Your task to perform on an android device: Turn off the flashlight Image 0: 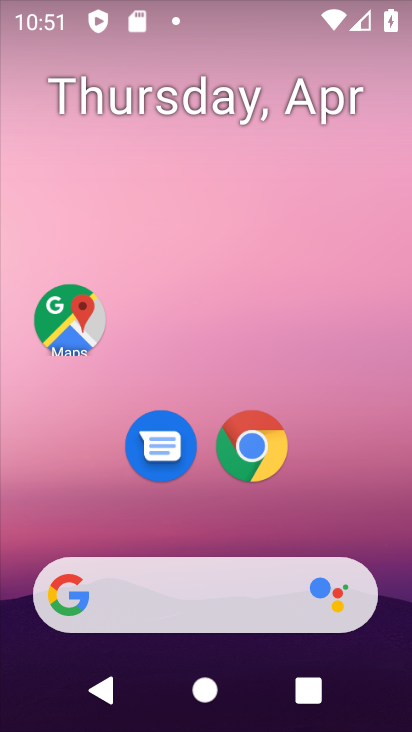
Step 0: drag from (205, 513) to (200, 41)
Your task to perform on an android device: Turn off the flashlight Image 1: 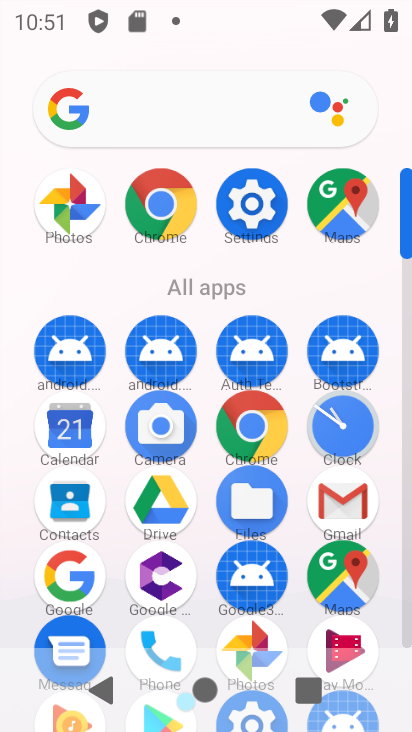
Step 1: click (245, 204)
Your task to perform on an android device: Turn off the flashlight Image 2: 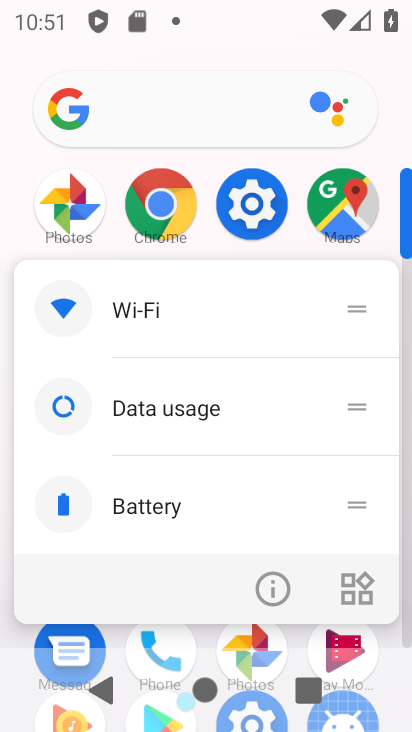
Step 2: click (275, 586)
Your task to perform on an android device: Turn off the flashlight Image 3: 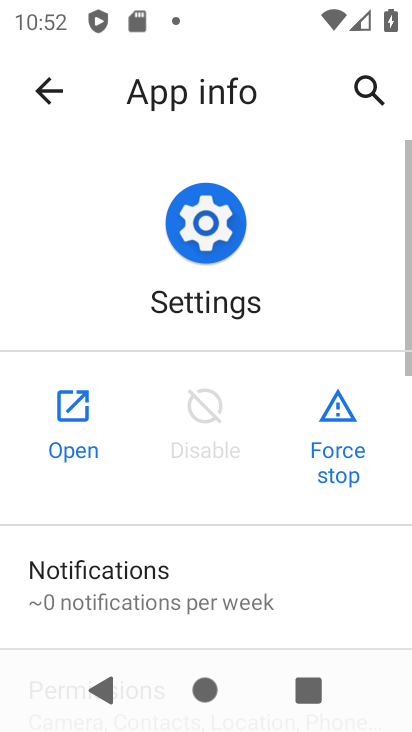
Step 3: click (74, 417)
Your task to perform on an android device: Turn off the flashlight Image 4: 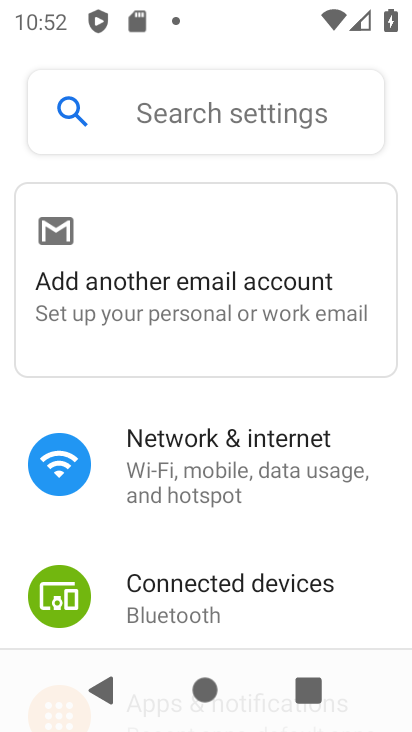
Step 4: click (178, 116)
Your task to perform on an android device: Turn off the flashlight Image 5: 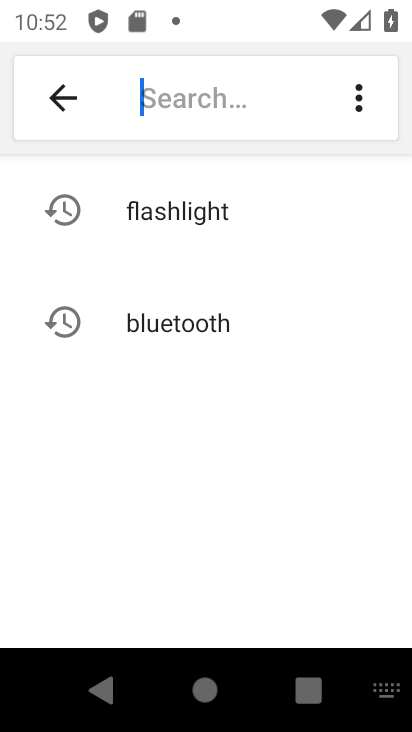
Step 5: type "flashlight"
Your task to perform on an android device: Turn off the flashlight Image 6: 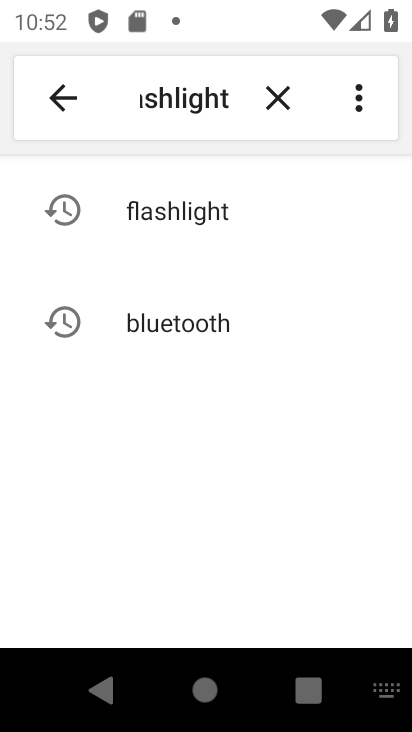
Step 6: click (211, 210)
Your task to perform on an android device: Turn off the flashlight Image 7: 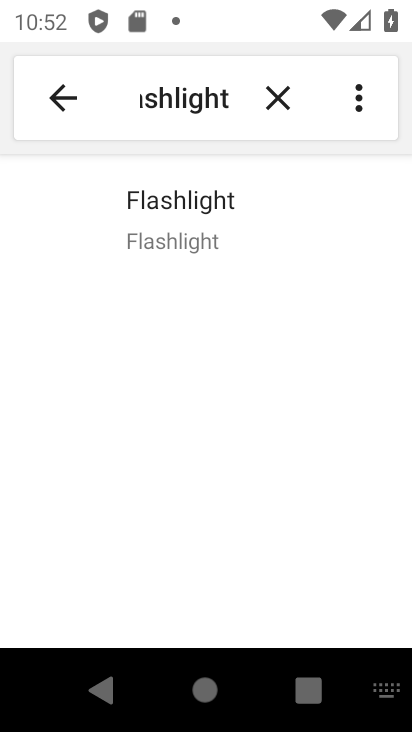
Step 7: click (239, 209)
Your task to perform on an android device: Turn off the flashlight Image 8: 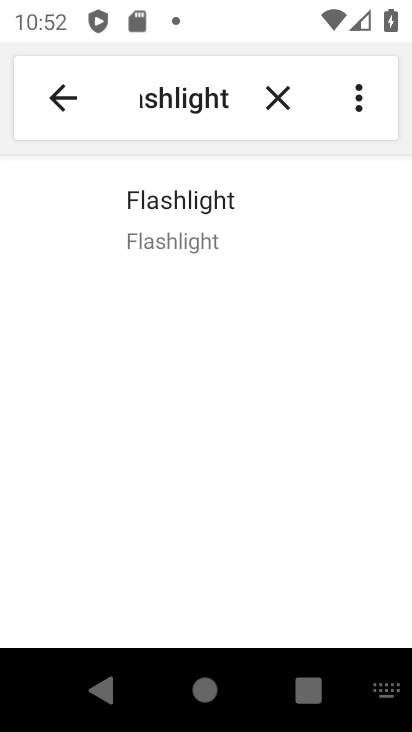
Step 8: click (201, 197)
Your task to perform on an android device: Turn off the flashlight Image 9: 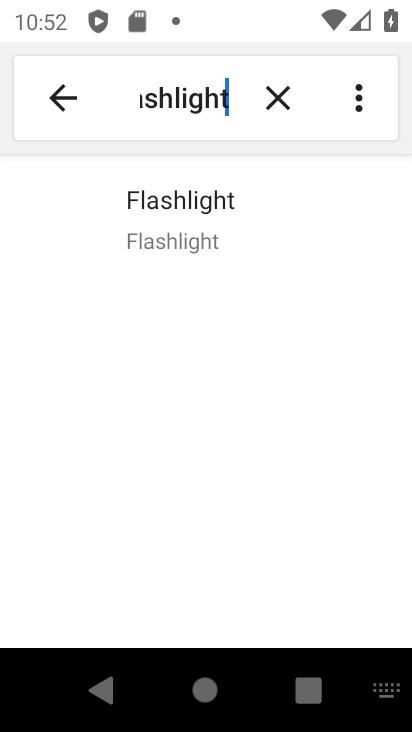
Step 9: click (218, 234)
Your task to perform on an android device: Turn off the flashlight Image 10: 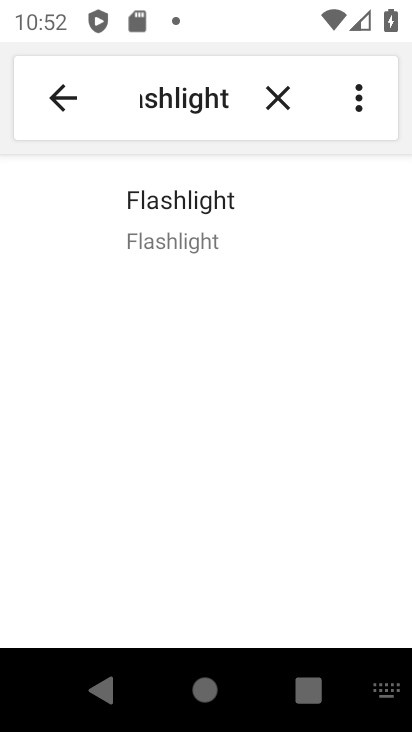
Step 10: click (213, 232)
Your task to perform on an android device: Turn off the flashlight Image 11: 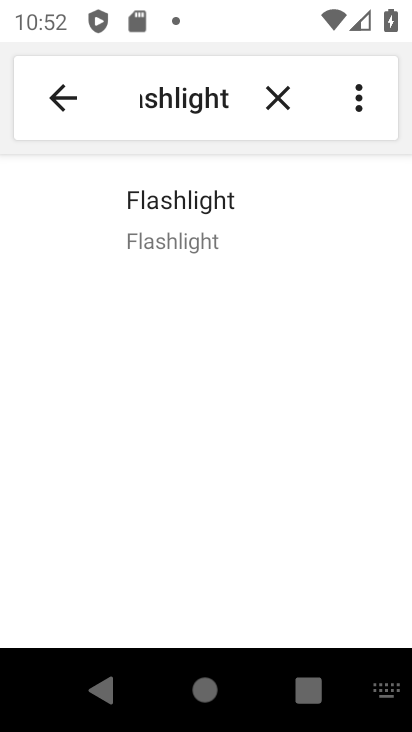
Step 11: click (299, 242)
Your task to perform on an android device: Turn off the flashlight Image 12: 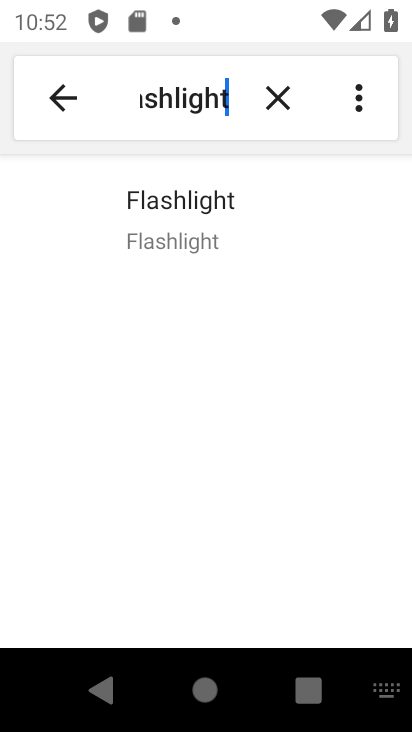
Step 12: click (287, 228)
Your task to perform on an android device: Turn off the flashlight Image 13: 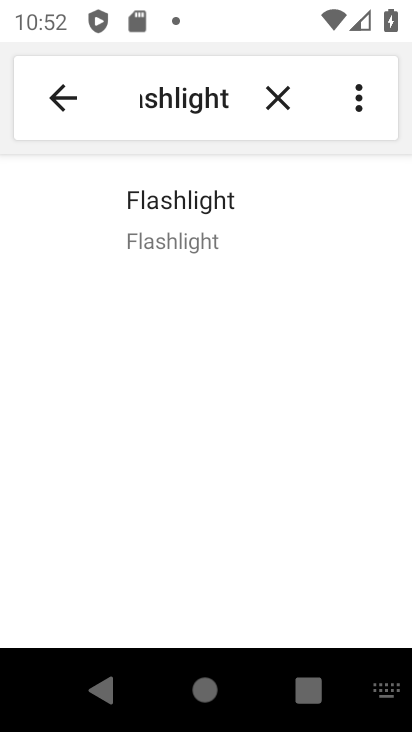
Step 13: click (252, 222)
Your task to perform on an android device: Turn off the flashlight Image 14: 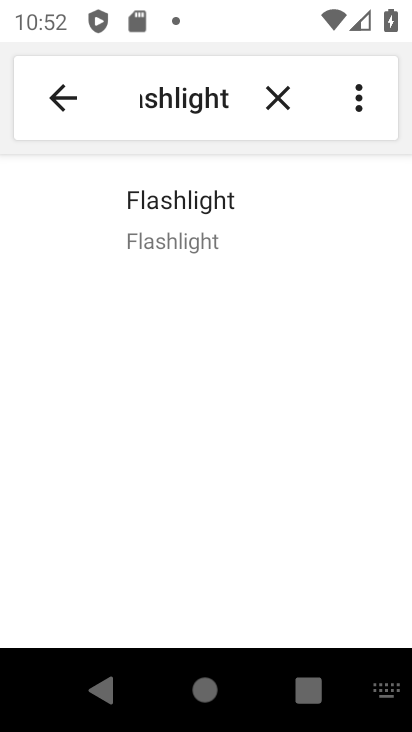
Step 14: click (216, 209)
Your task to perform on an android device: Turn off the flashlight Image 15: 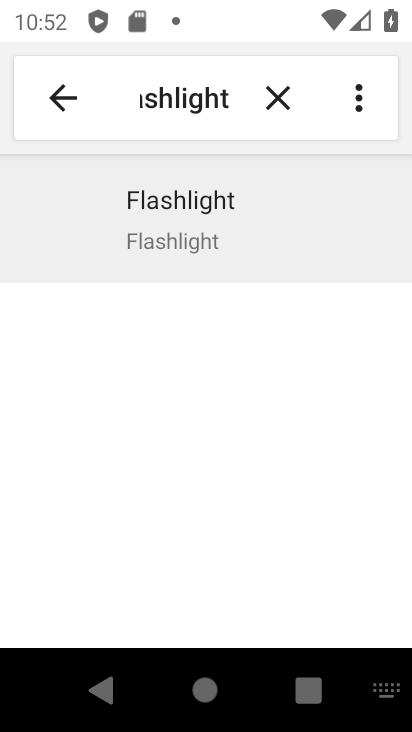
Step 15: click (178, 218)
Your task to perform on an android device: Turn off the flashlight Image 16: 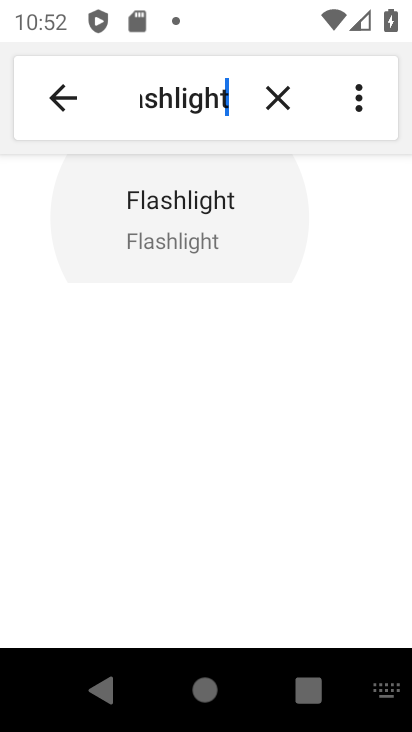
Step 16: click (141, 213)
Your task to perform on an android device: Turn off the flashlight Image 17: 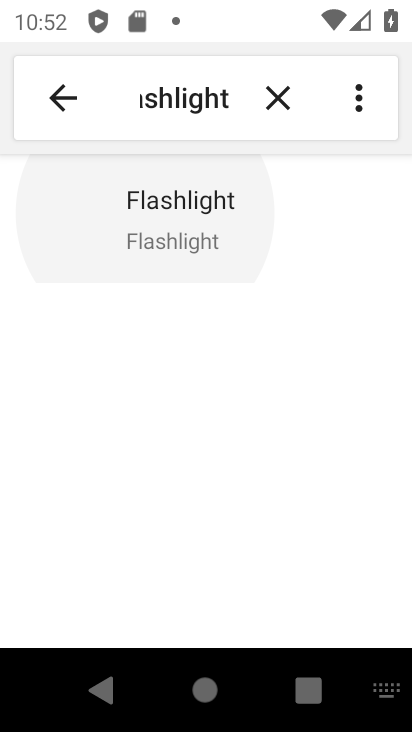
Step 17: click (124, 213)
Your task to perform on an android device: Turn off the flashlight Image 18: 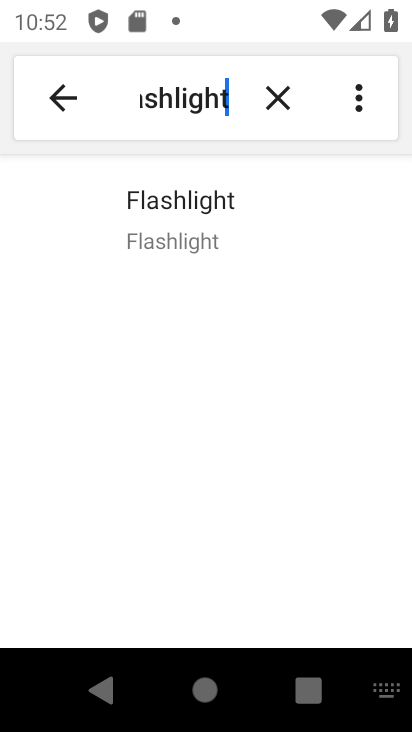
Step 18: click (211, 216)
Your task to perform on an android device: Turn off the flashlight Image 19: 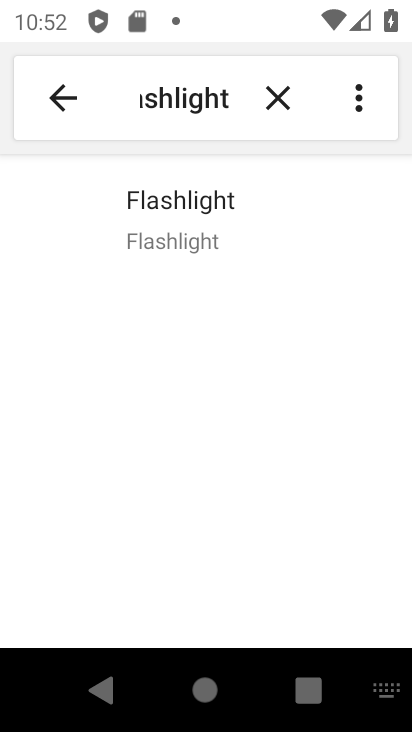
Step 19: click (192, 227)
Your task to perform on an android device: Turn off the flashlight Image 20: 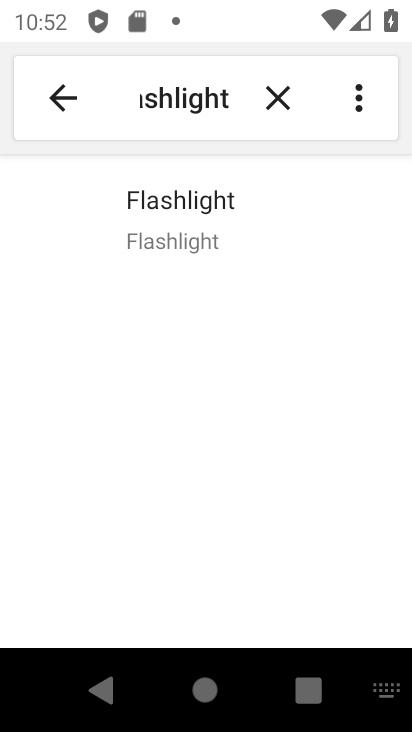
Step 20: task complete